Your task to perform on an android device: change notification settings in the gmail app Image 0: 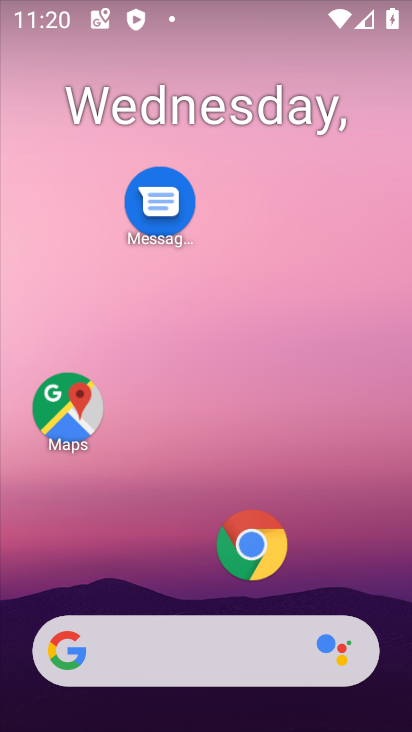
Step 0: drag from (183, 586) to (220, 208)
Your task to perform on an android device: change notification settings in the gmail app Image 1: 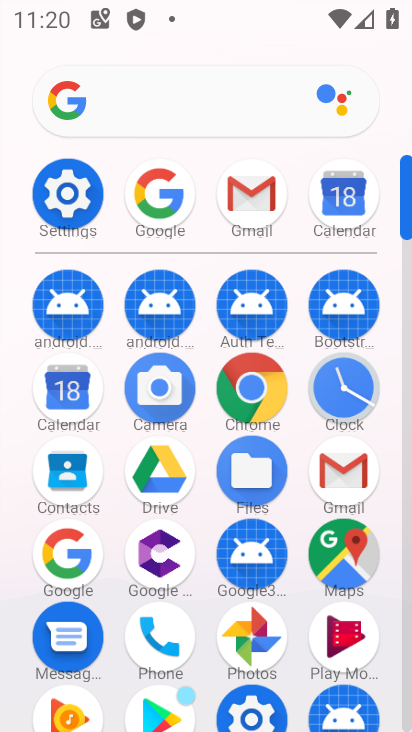
Step 1: click (345, 481)
Your task to perform on an android device: change notification settings in the gmail app Image 2: 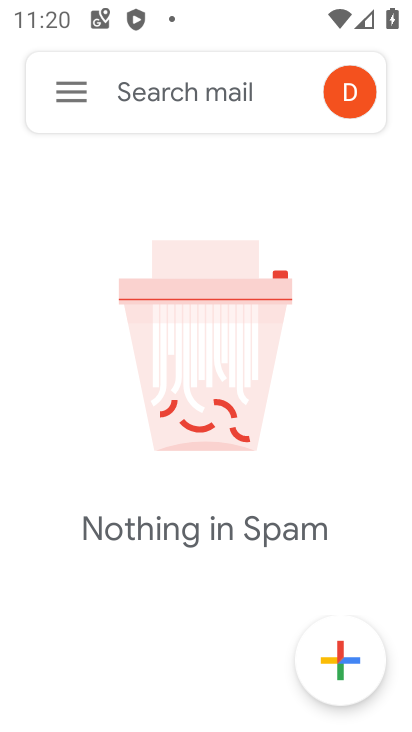
Step 2: click (64, 90)
Your task to perform on an android device: change notification settings in the gmail app Image 3: 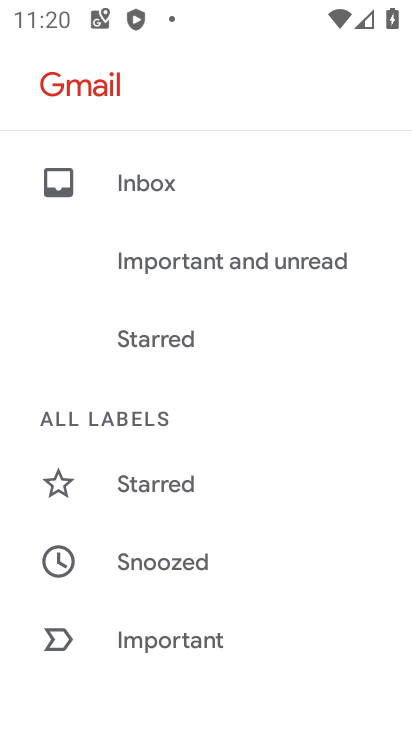
Step 3: drag from (156, 547) to (196, 261)
Your task to perform on an android device: change notification settings in the gmail app Image 4: 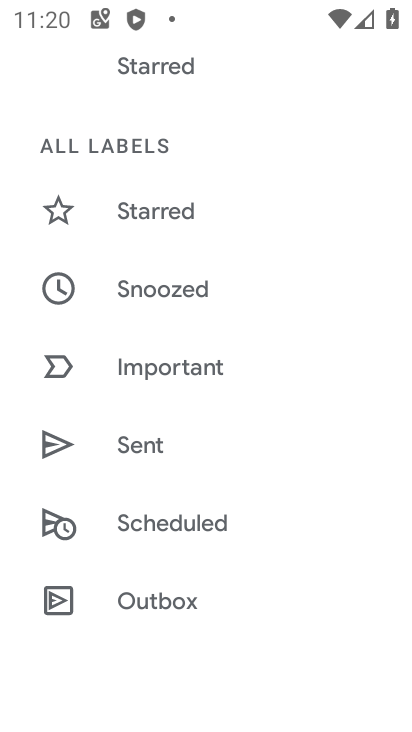
Step 4: drag from (203, 584) to (208, 266)
Your task to perform on an android device: change notification settings in the gmail app Image 5: 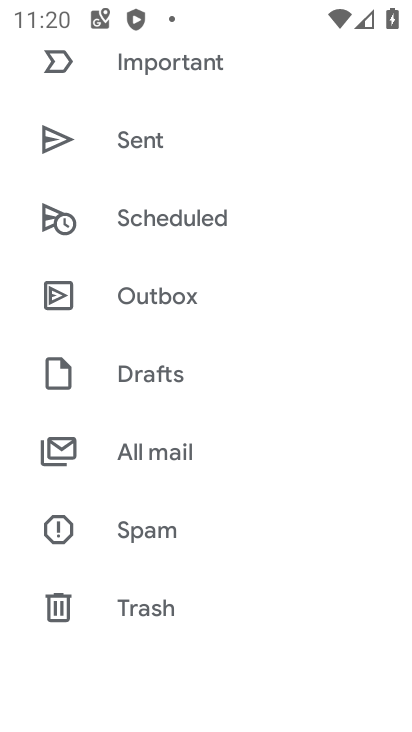
Step 5: drag from (191, 538) to (198, 245)
Your task to perform on an android device: change notification settings in the gmail app Image 6: 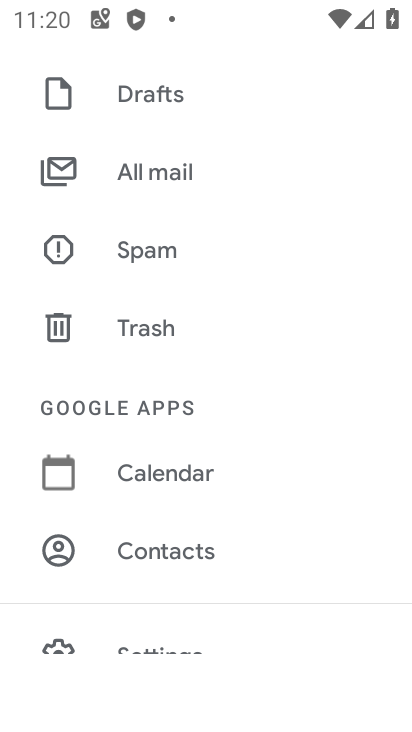
Step 6: drag from (194, 558) to (195, 278)
Your task to perform on an android device: change notification settings in the gmail app Image 7: 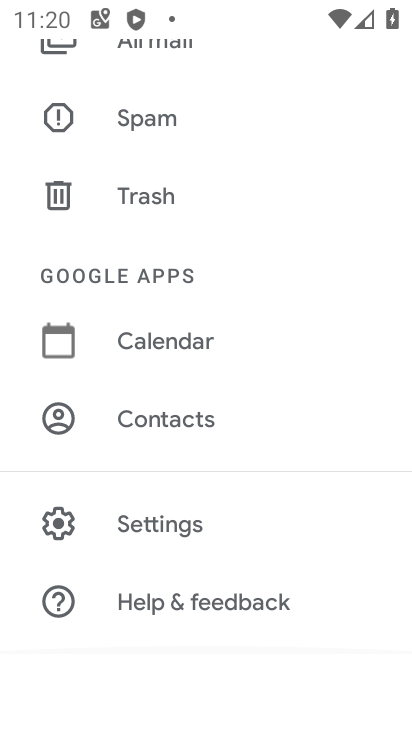
Step 7: click (175, 516)
Your task to perform on an android device: change notification settings in the gmail app Image 8: 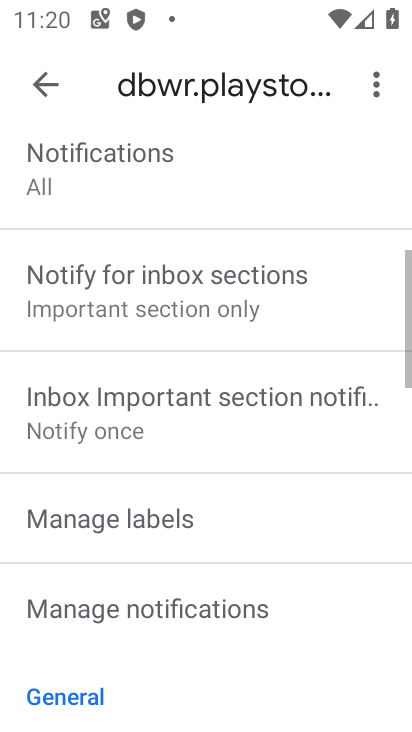
Step 8: drag from (193, 528) to (193, 312)
Your task to perform on an android device: change notification settings in the gmail app Image 9: 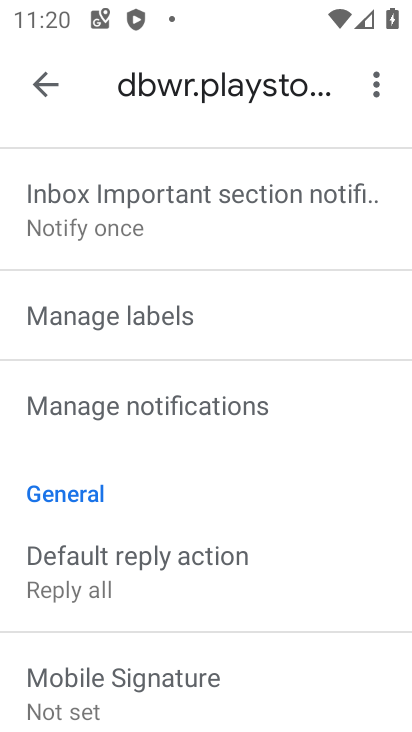
Step 9: click (209, 386)
Your task to perform on an android device: change notification settings in the gmail app Image 10: 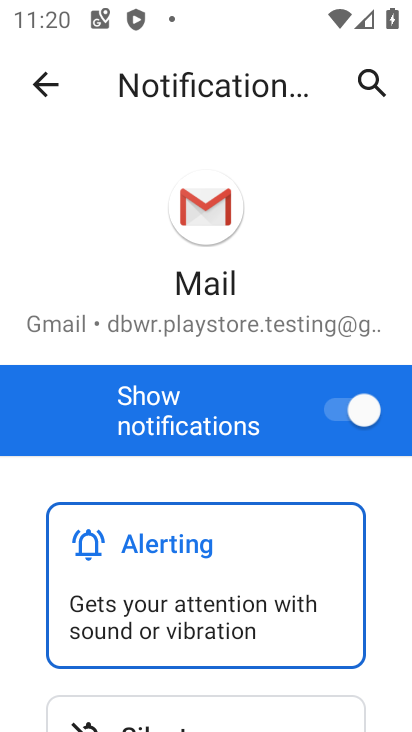
Step 10: click (339, 404)
Your task to perform on an android device: change notification settings in the gmail app Image 11: 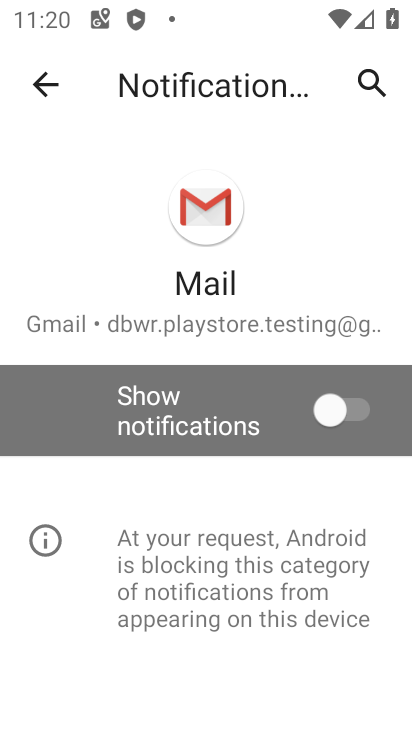
Step 11: task complete